Your task to perform on an android device: turn off notifications in google photos Image 0: 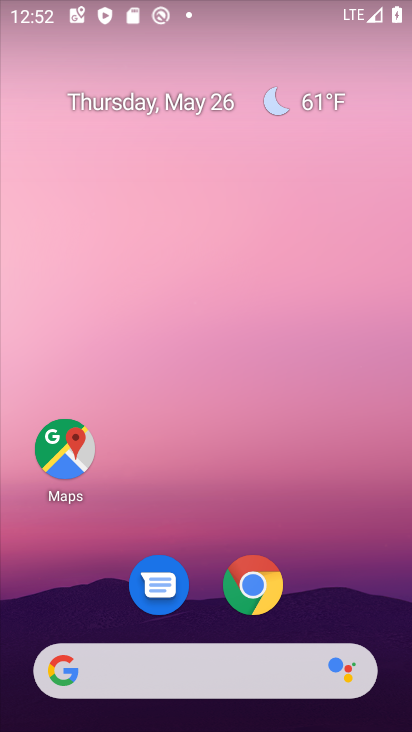
Step 0: drag from (265, 498) to (326, 40)
Your task to perform on an android device: turn off notifications in google photos Image 1: 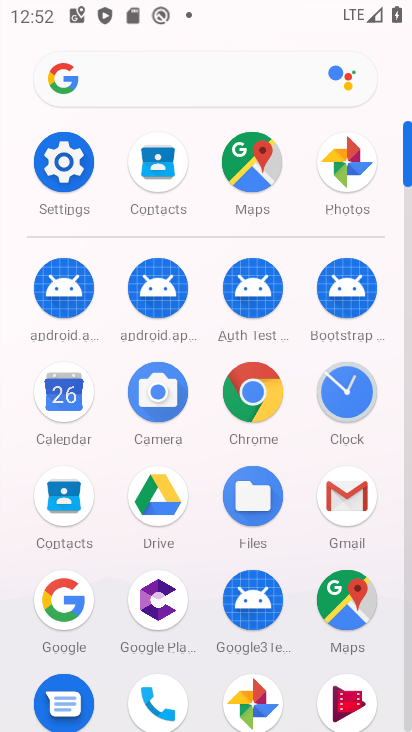
Step 1: click (341, 147)
Your task to perform on an android device: turn off notifications in google photos Image 2: 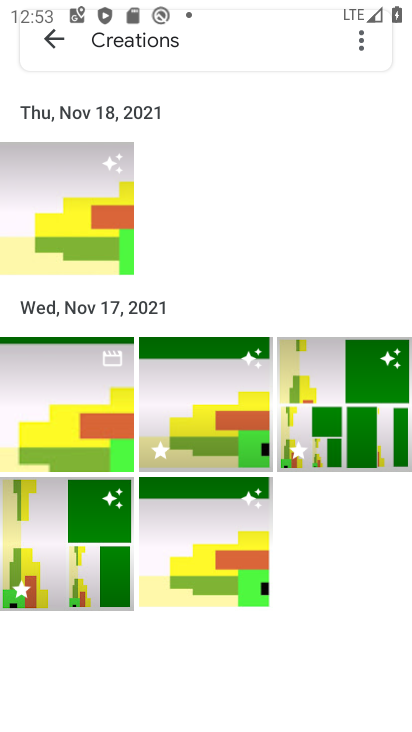
Step 2: click (56, 30)
Your task to perform on an android device: turn off notifications in google photos Image 3: 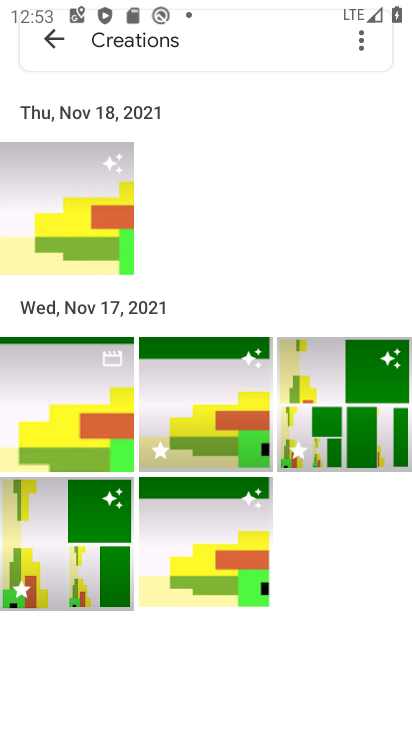
Step 3: click (47, 36)
Your task to perform on an android device: turn off notifications in google photos Image 4: 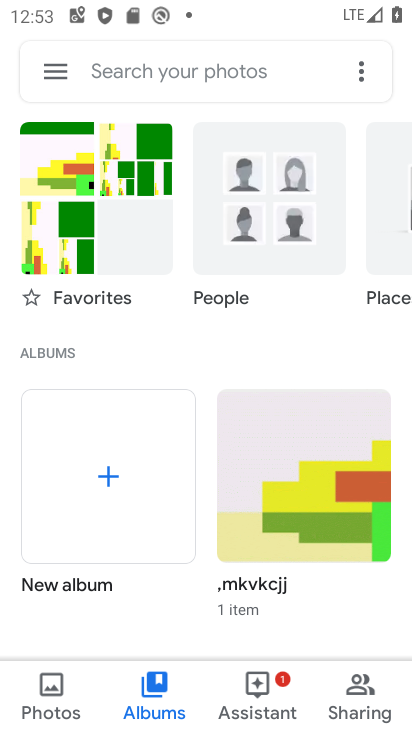
Step 4: click (48, 74)
Your task to perform on an android device: turn off notifications in google photos Image 5: 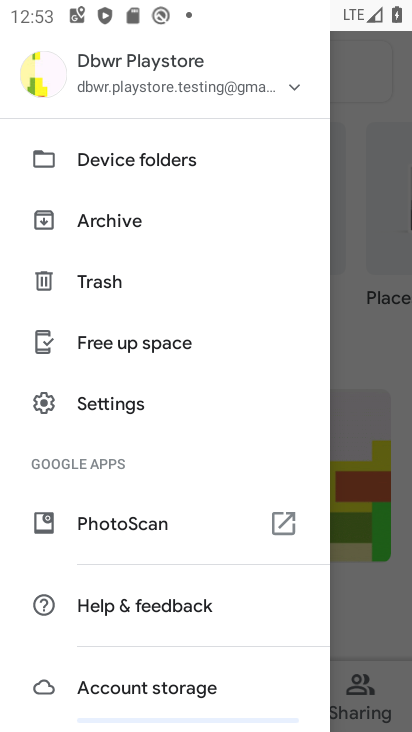
Step 5: click (124, 400)
Your task to perform on an android device: turn off notifications in google photos Image 6: 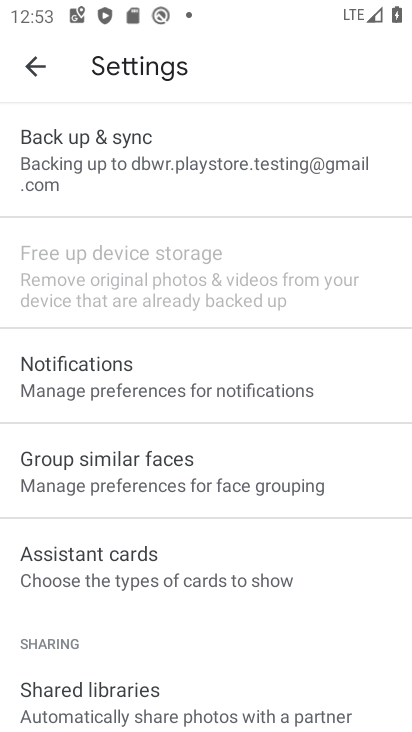
Step 6: click (135, 385)
Your task to perform on an android device: turn off notifications in google photos Image 7: 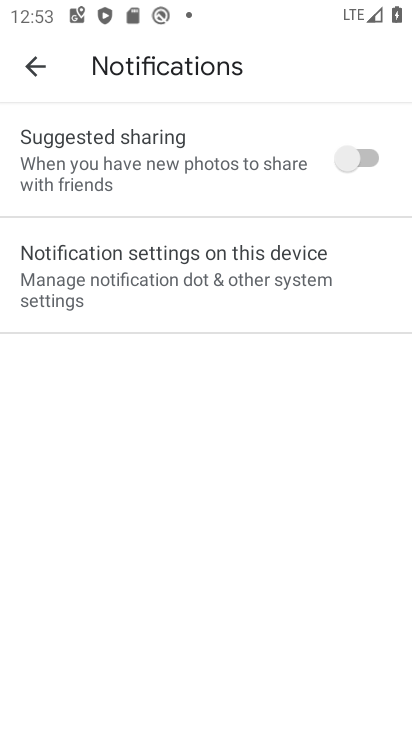
Step 7: click (209, 269)
Your task to perform on an android device: turn off notifications in google photos Image 8: 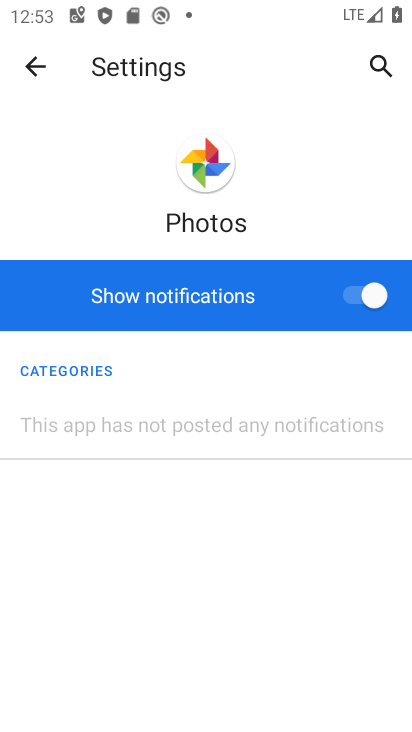
Step 8: click (355, 287)
Your task to perform on an android device: turn off notifications in google photos Image 9: 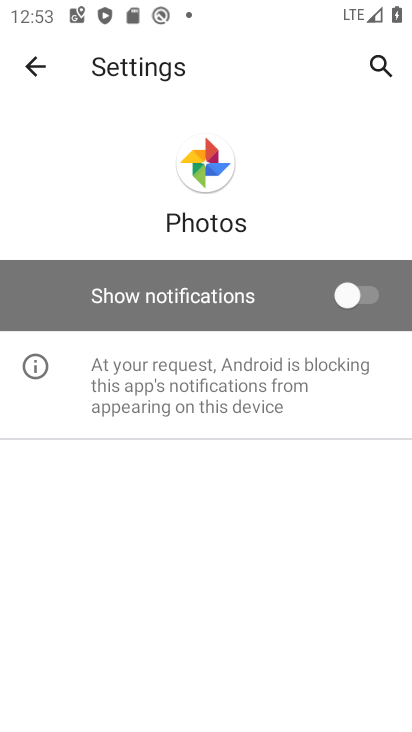
Step 9: task complete